Your task to perform on an android device: Open calendar and show me the fourth week of next month Image 0: 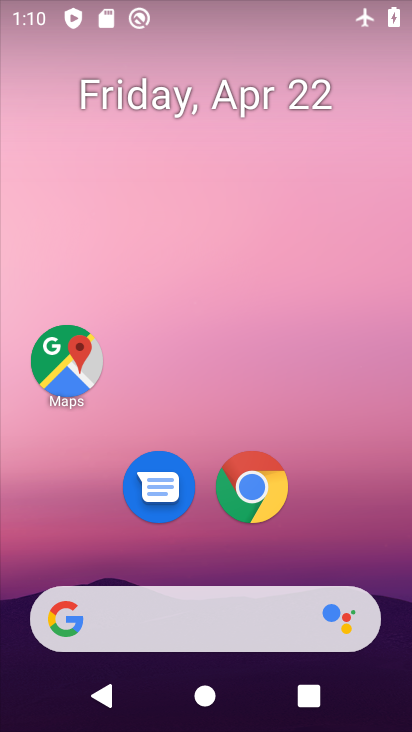
Step 0: drag from (207, 553) to (214, 163)
Your task to perform on an android device: Open calendar and show me the fourth week of next month Image 1: 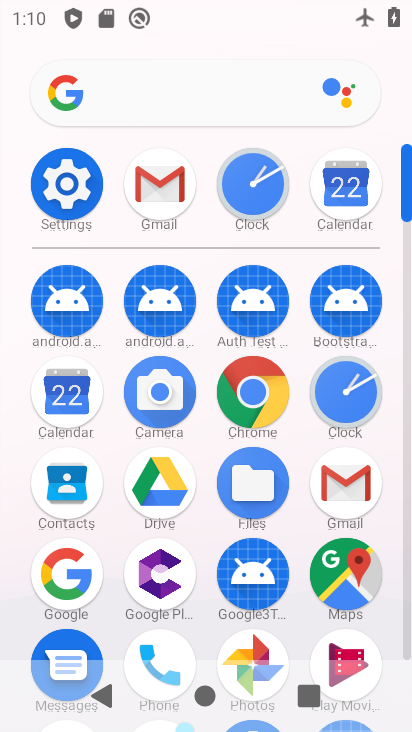
Step 1: click (334, 189)
Your task to perform on an android device: Open calendar and show me the fourth week of next month Image 2: 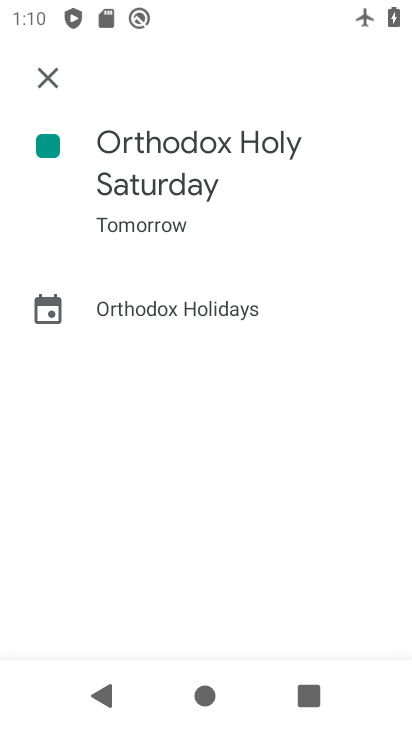
Step 2: click (44, 71)
Your task to perform on an android device: Open calendar and show me the fourth week of next month Image 3: 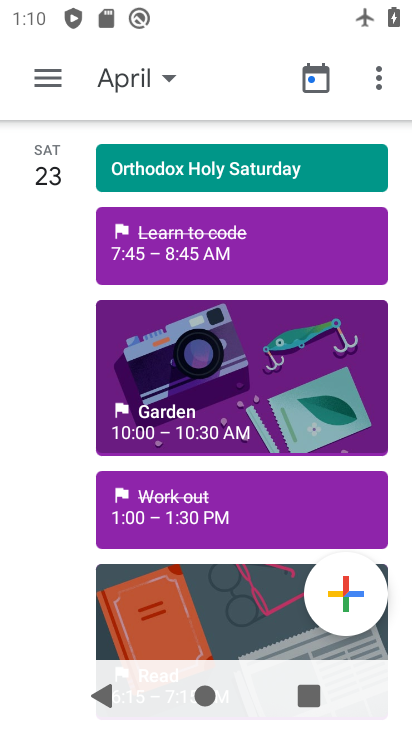
Step 3: click (136, 81)
Your task to perform on an android device: Open calendar and show me the fourth week of next month Image 4: 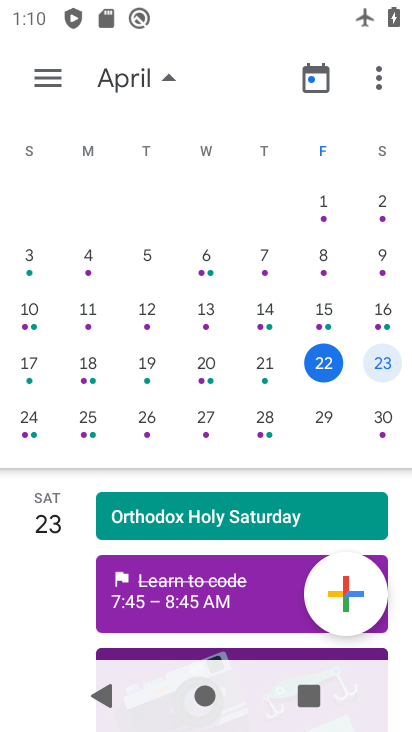
Step 4: drag from (353, 294) to (37, 281)
Your task to perform on an android device: Open calendar and show me the fourth week of next month Image 5: 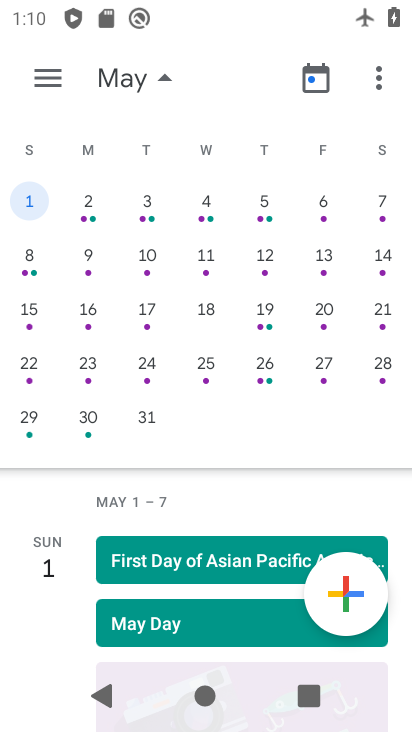
Step 5: click (86, 363)
Your task to perform on an android device: Open calendar and show me the fourth week of next month Image 6: 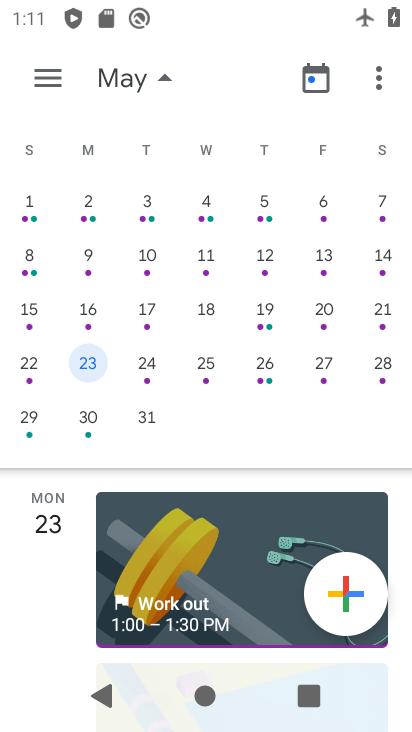
Step 6: task complete